Your task to perform on an android device: Clear the shopping cart on amazon.com. Image 0: 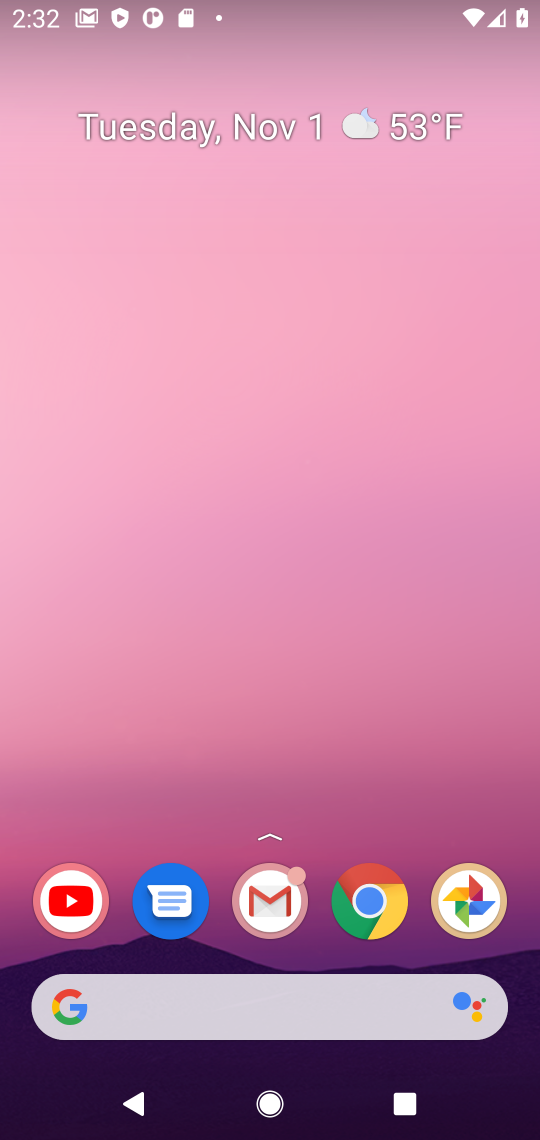
Step 0: click (382, 900)
Your task to perform on an android device: Clear the shopping cart on amazon.com. Image 1: 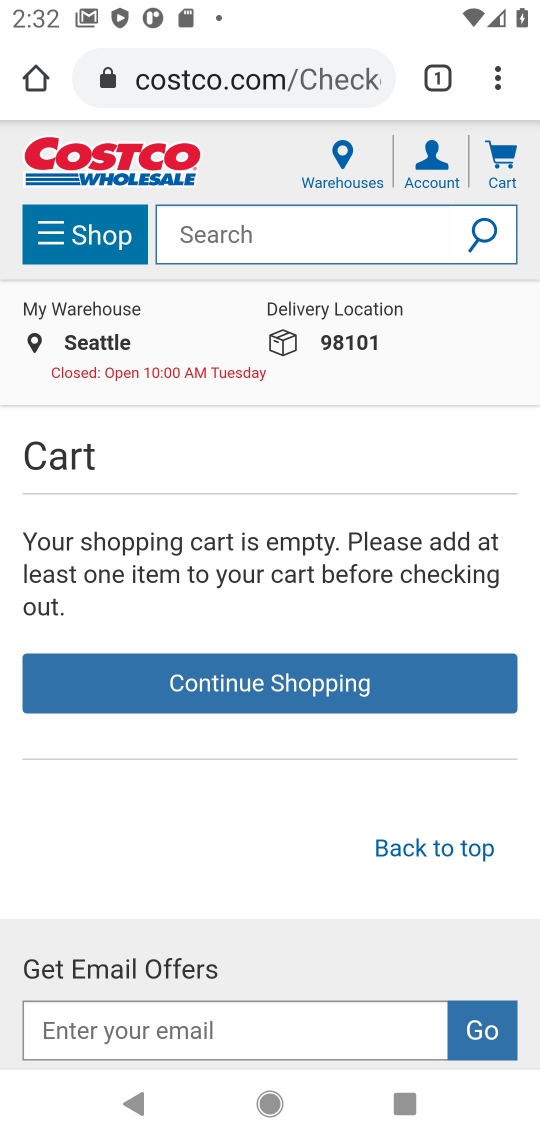
Step 1: click (249, 71)
Your task to perform on an android device: Clear the shopping cart on amazon.com. Image 2: 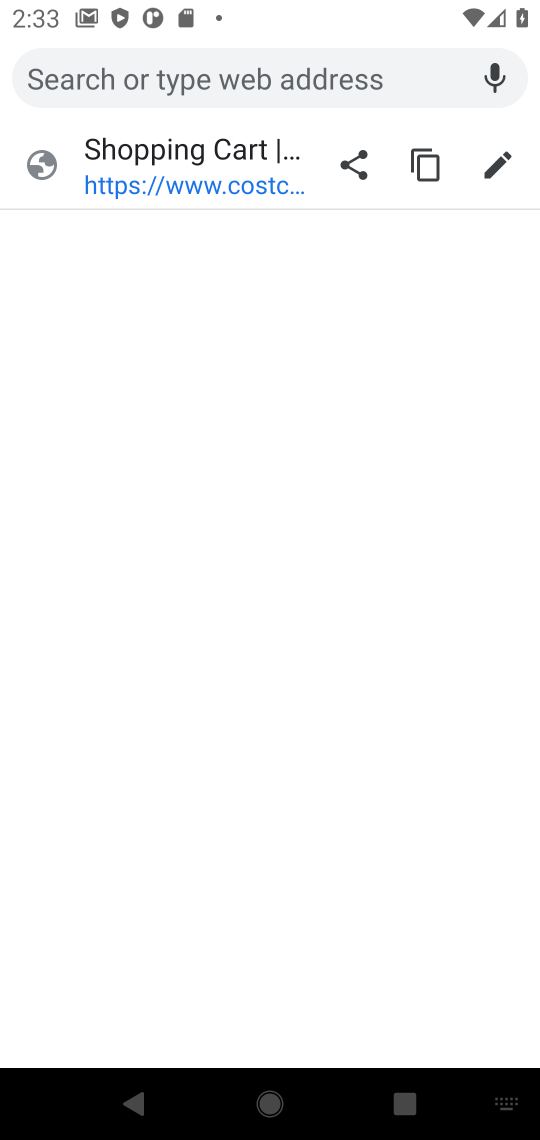
Step 2: type "amazon"
Your task to perform on an android device: Clear the shopping cart on amazon.com. Image 3: 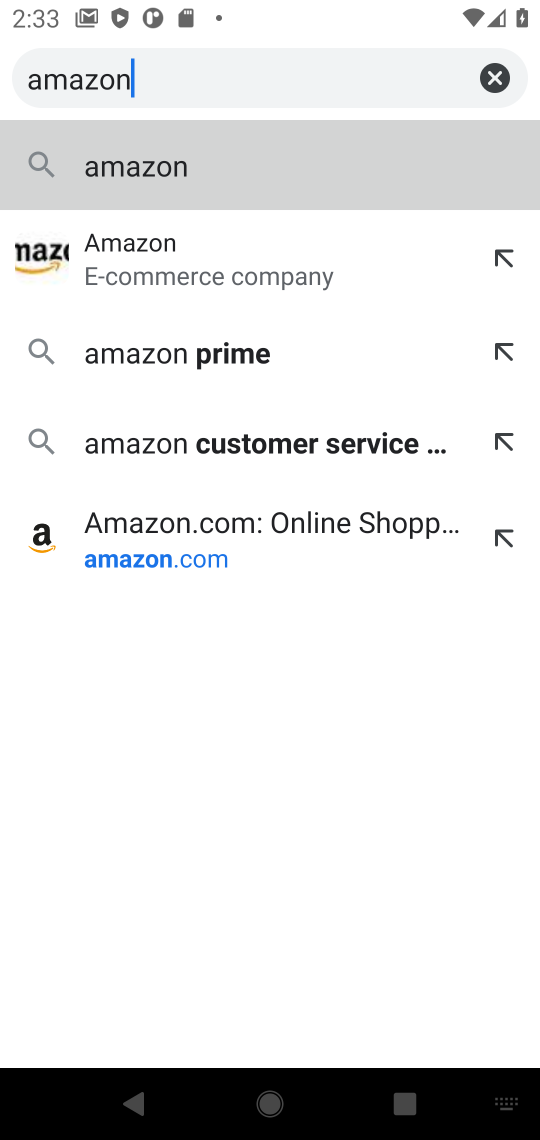
Step 3: click (184, 261)
Your task to perform on an android device: Clear the shopping cart on amazon.com. Image 4: 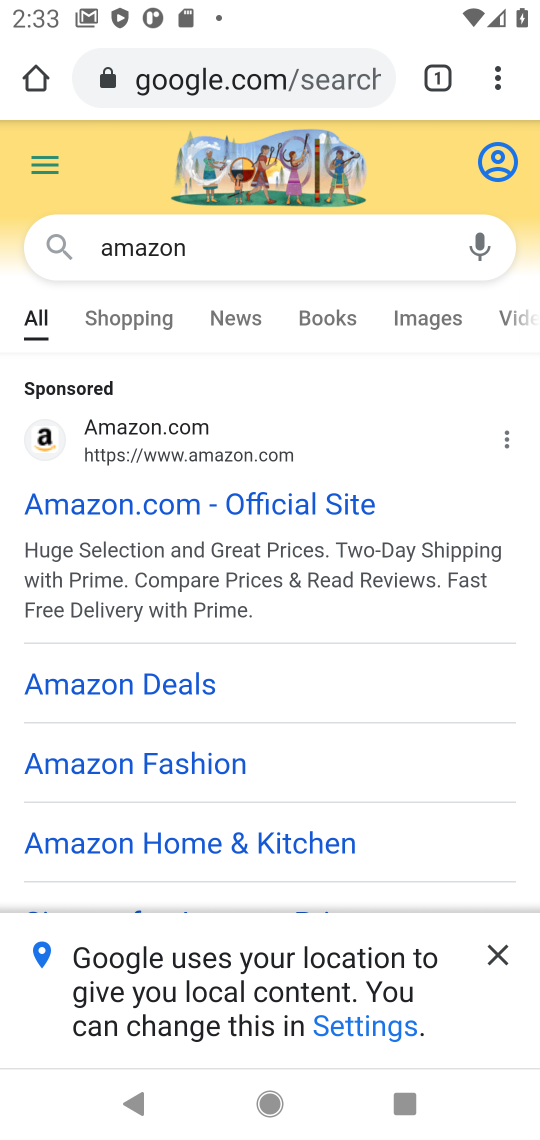
Step 4: click (252, 504)
Your task to perform on an android device: Clear the shopping cart on amazon.com. Image 5: 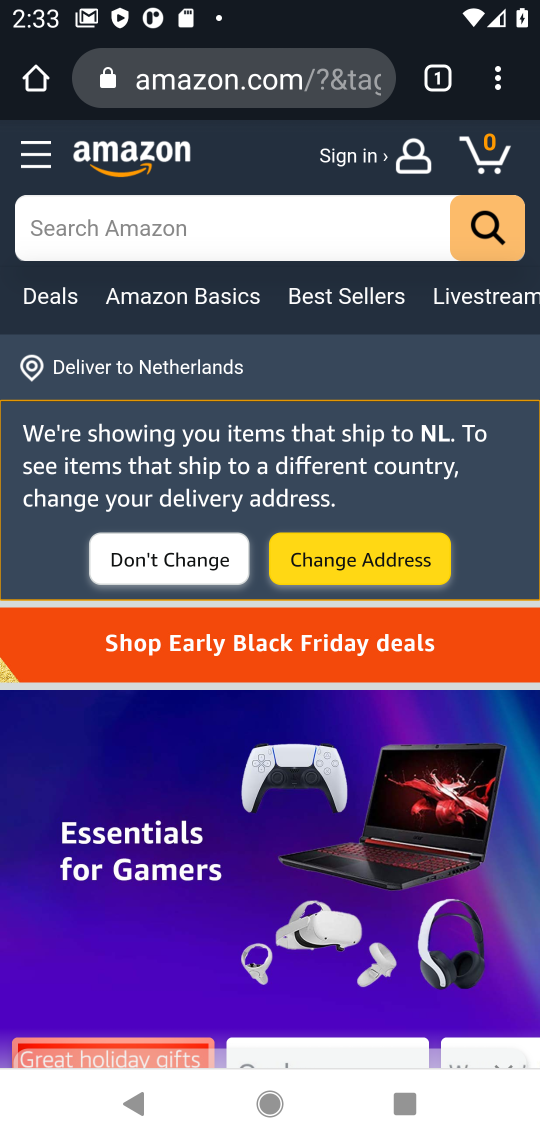
Step 5: click (487, 151)
Your task to perform on an android device: Clear the shopping cart on amazon.com. Image 6: 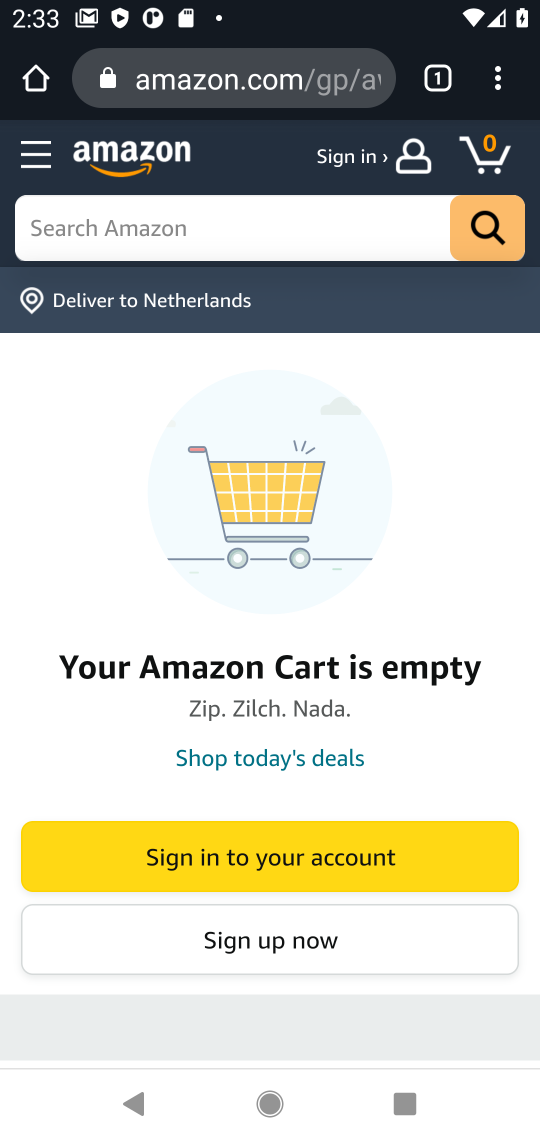
Step 6: task complete